Your task to perform on an android device: Open internet settings Image 0: 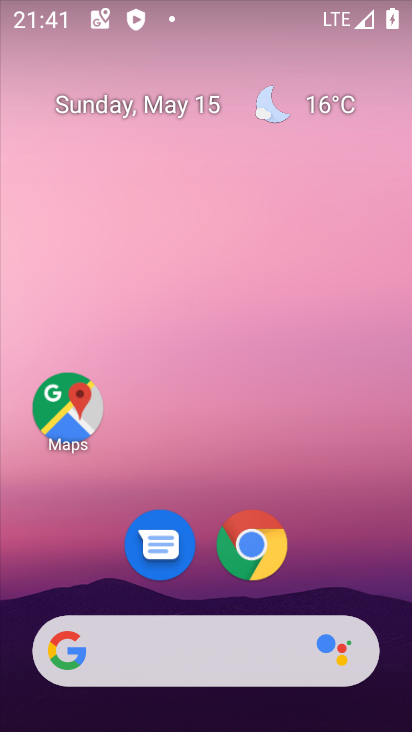
Step 0: drag from (336, 571) to (221, 119)
Your task to perform on an android device: Open internet settings Image 1: 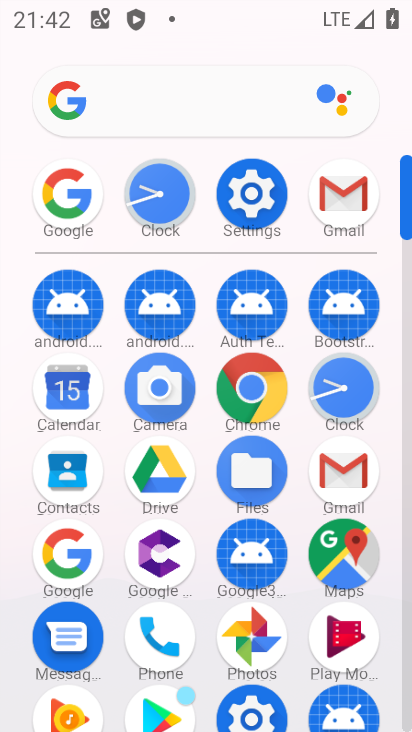
Step 1: click (251, 195)
Your task to perform on an android device: Open internet settings Image 2: 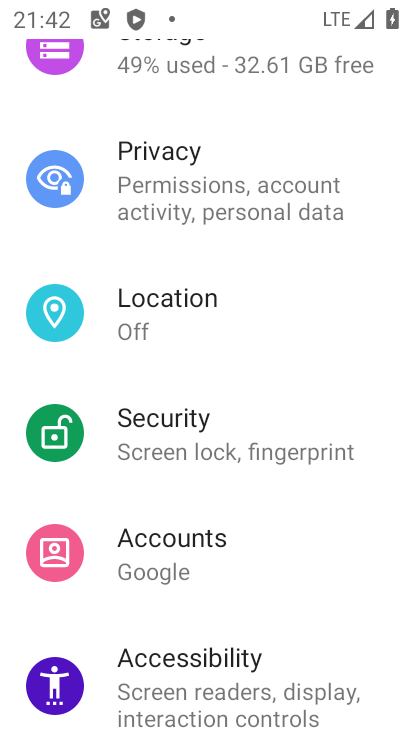
Step 2: drag from (250, 151) to (225, 337)
Your task to perform on an android device: Open internet settings Image 3: 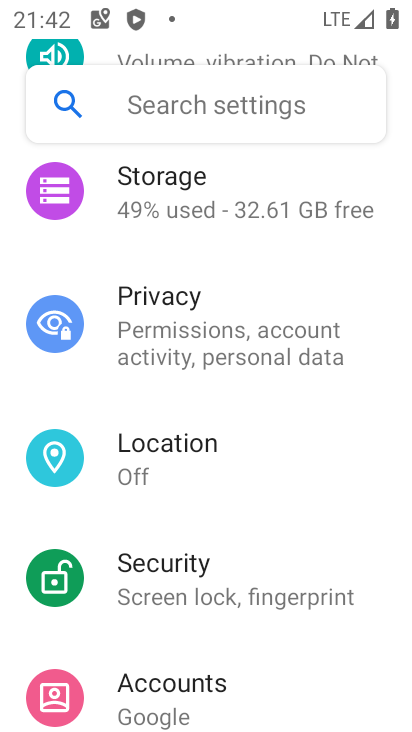
Step 3: drag from (222, 257) to (237, 378)
Your task to perform on an android device: Open internet settings Image 4: 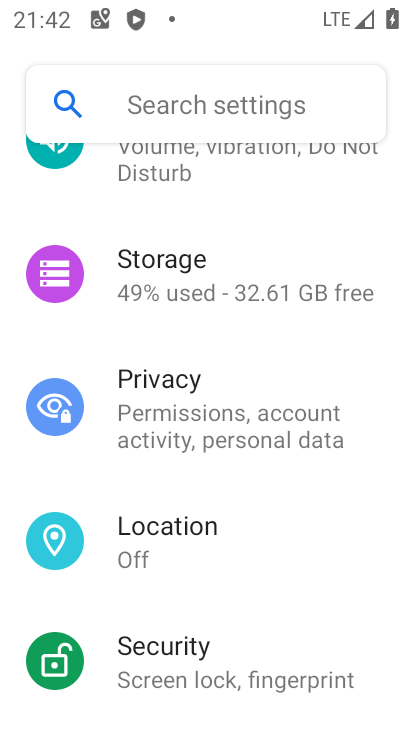
Step 4: drag from (232, 229) to (233, 355)
Your task to perform on an android device: Open internet settings Image 5: 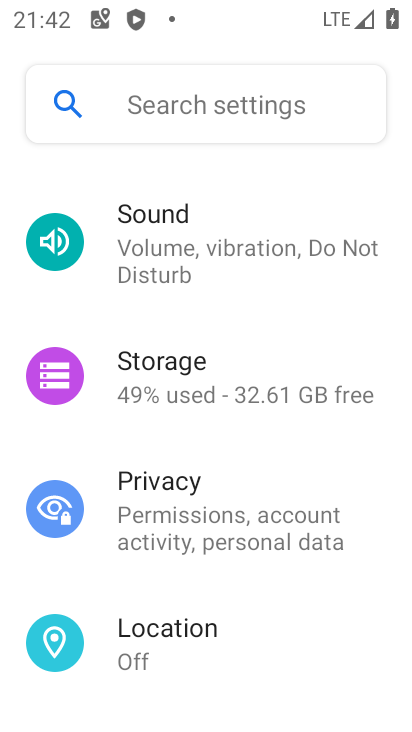
Step 5: drag from (253, 194) to (262, 319)
Your task to perform on an android device: Open internet settings Image 6: 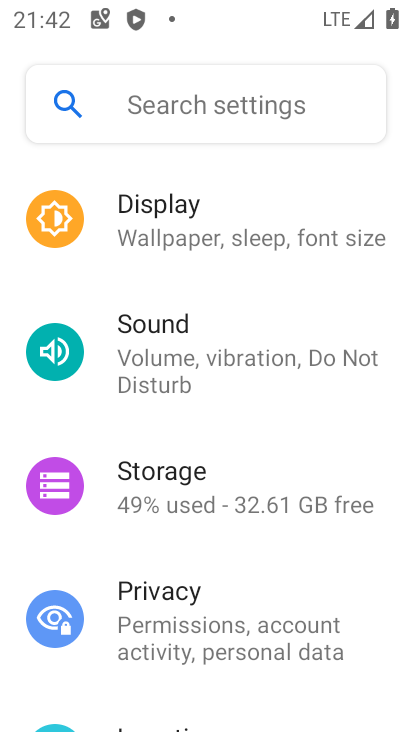
Step 6: drag from (241, 271) to (254, 377)
Your task to perform on an android device: Open internet settings Image 7: 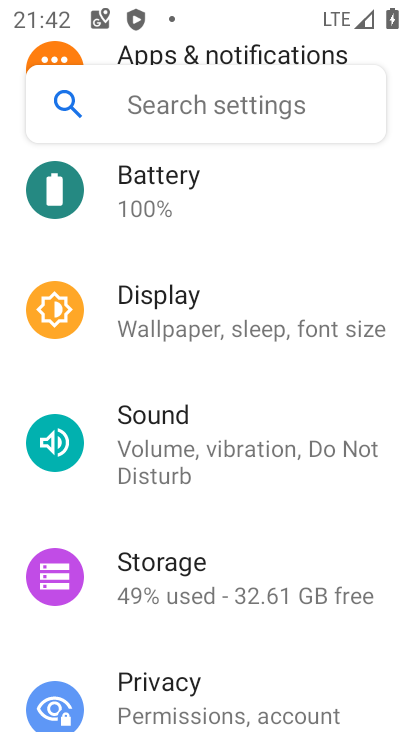
Step 7: drag from (232, 245) to (248, 371)
Your task to perform on an android device: Open internet settings Image 8: 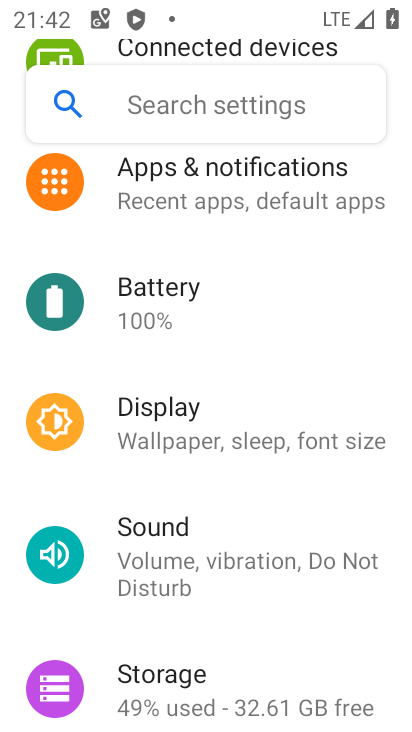
Step 8: drag from (236, 246) to (258, 384)
Your task to perform on an android device: Open internet settings Image 9: 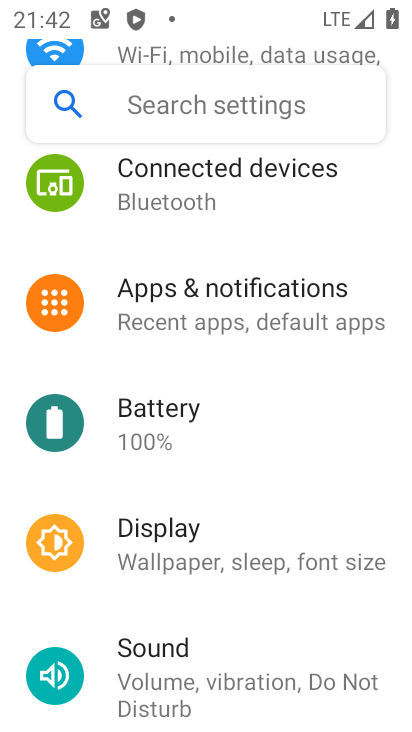
Step 9: drag from (250, 230) to (260, 397)
Your task to perform on an android device: Open internet settings Image 10: 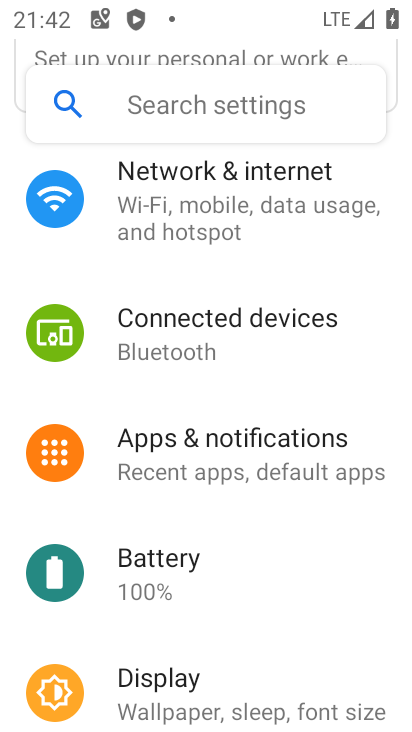
Step 10: drag from (248, 277) to (249, 406)
Your task to perform on an android device: Open internet settings Image 11: 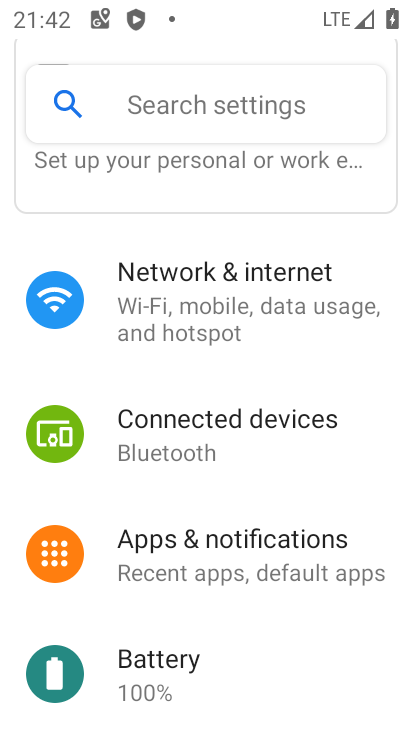
Step 11: click (218, 277)
Your task to perform on an android device: Open internet settings Image 12: 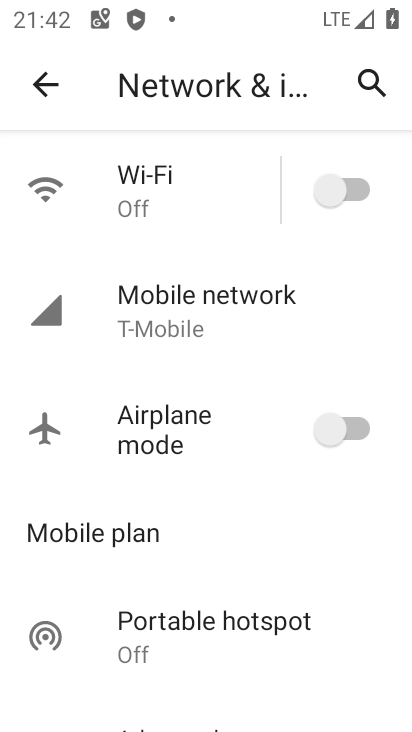
Step 12: task complete